Your task to perform on an android device: turn on translation in the chrome app Image 0: 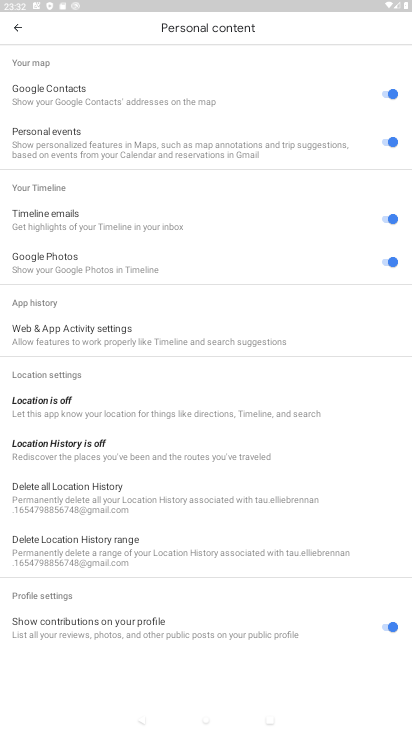
Step 0: press home button
Your task to perform on an android device: turn on translation in the chrome app Image 1: 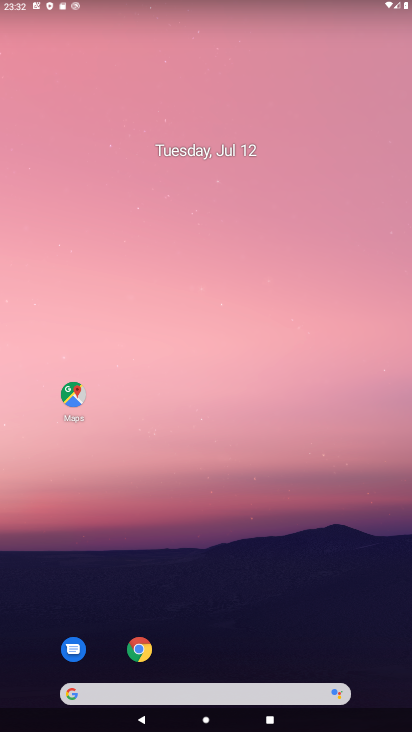
Step 1: click (142, 651)
Your task to perform on an android device: turn on translation in the chrome app Image 2: 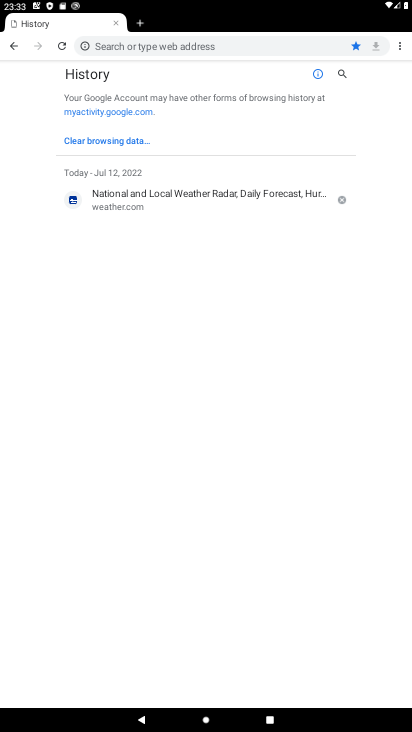
Step 2: click (397, 48)
Your task to perform on an android device: turn on translation in the chrome app Image 3: 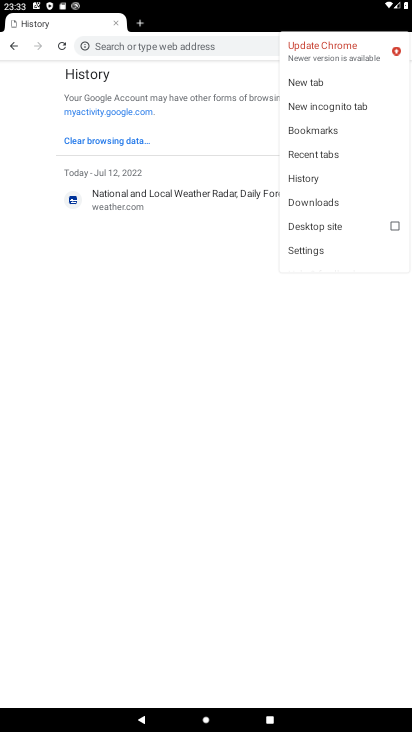
Step 3: click (314, 245)
Your task to perform on an android device: turn on translation in the chrome app Image 4: 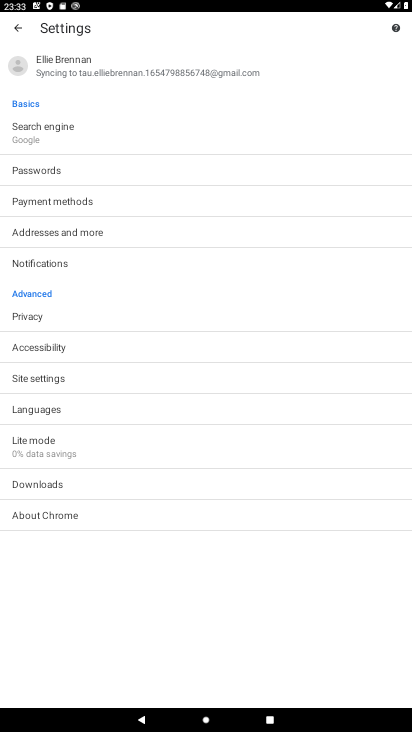
Step 4: click (44, 411)
Your task to perform on an android device: turn on translation in the chrome app Image 5: 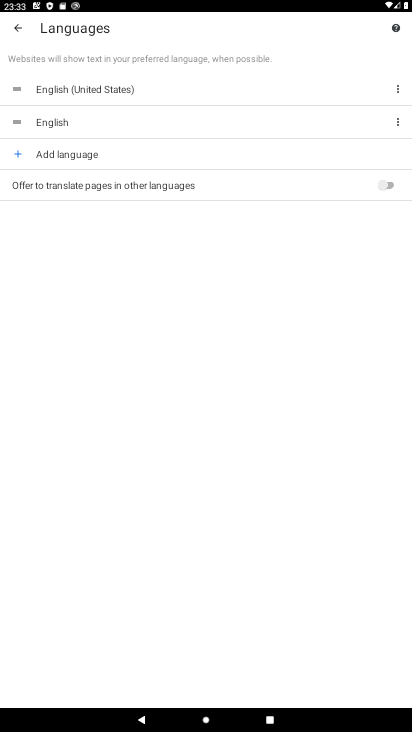
Step 5: click (390, 186)
Your task to perform on an android device: turn on translation in the chrome app Image 6: 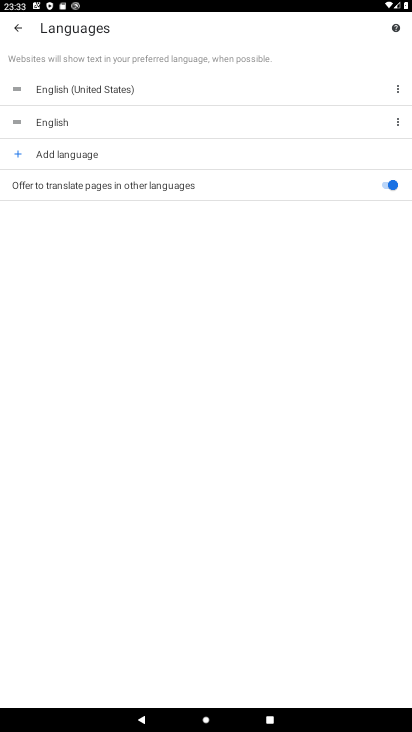
Step 6: task complete